Your task to perform on an android device: Open Chrome and go to settings Image 0: 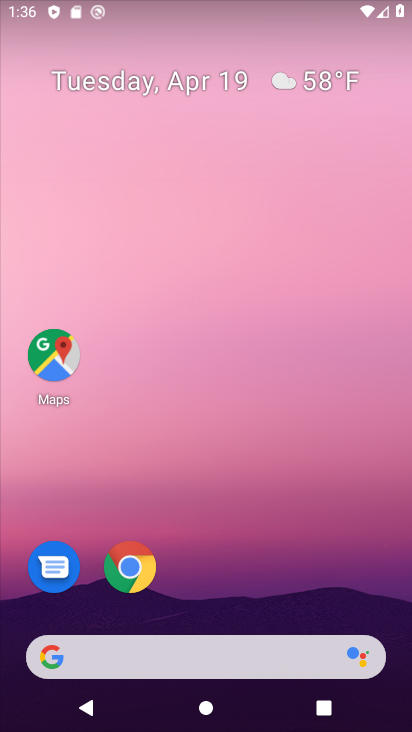
Step 0: click (138, 564)
Your task to perform on an android device: Open Chrome and go to settings Image 1: 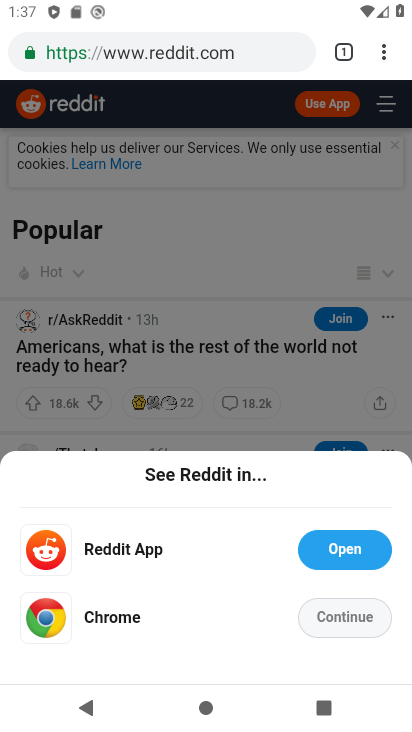
Step 1: click (380, 53)
Your task to perform on an android device: Open Chrome and go to settings Image 2: 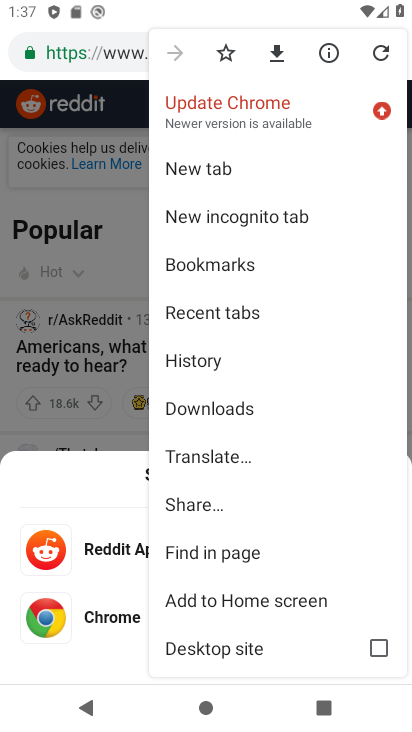
Step 2: drag from (332, 605) to (286, 308)
Your task to perform on an android device: Open Chrome and go to settings Image 3: 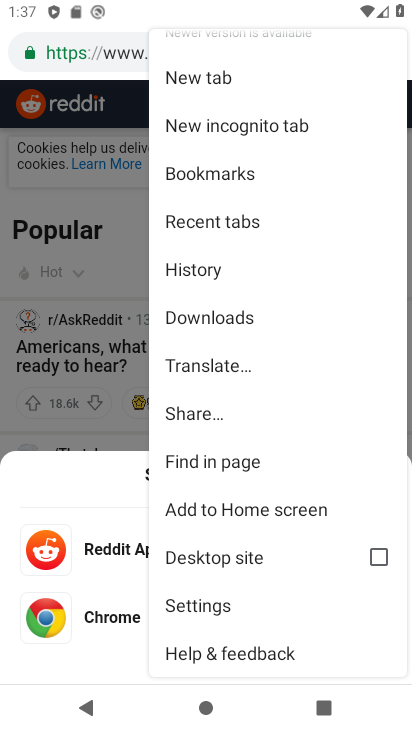
Step 3: click (184, 602)
Your task to perform on an android device: Open Chrome and go to settings Image 4: 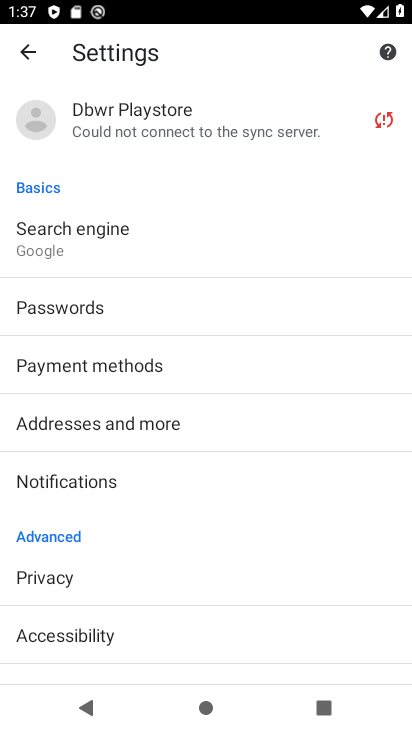
Step 4: task complete